Your task to perform on an android device: set the timer Image 0: 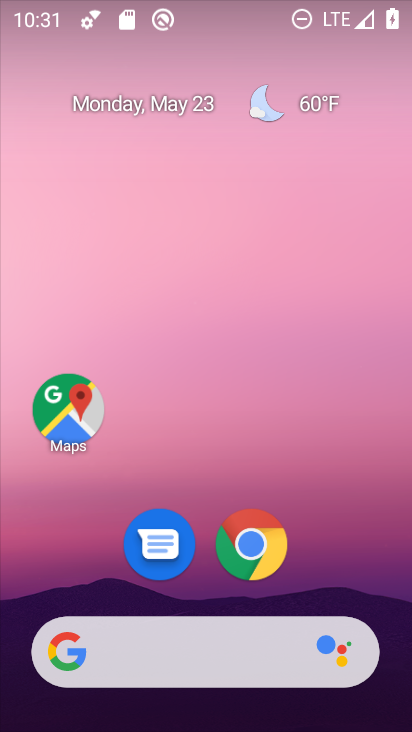
Step 0: drag from (309, 580) to (263, 324)
Your task to perform on an android device: set the timer Image 1: 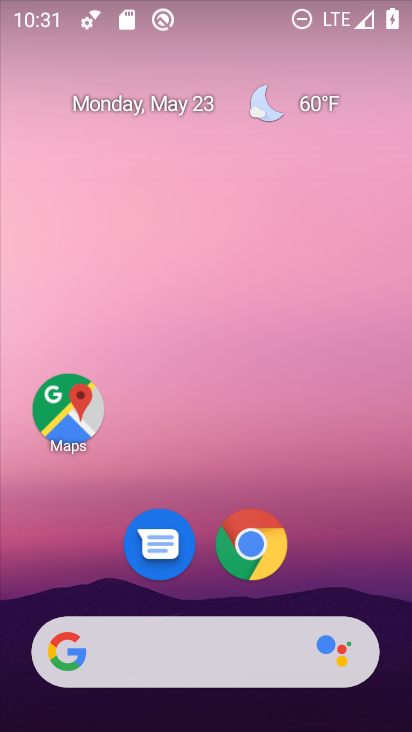
Step 1: drag from (335, 579) to (149, 140)
Your task to perform on an android device: set the timer Image 2: 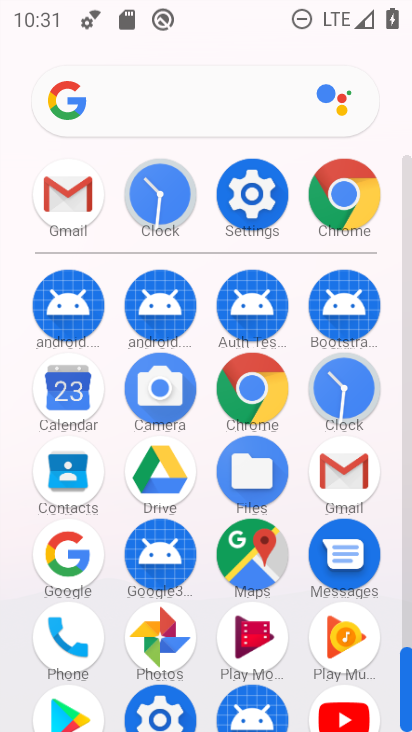
Step 2: click (166, 218)
Your task to perform on an android device: set the timer Image 3: 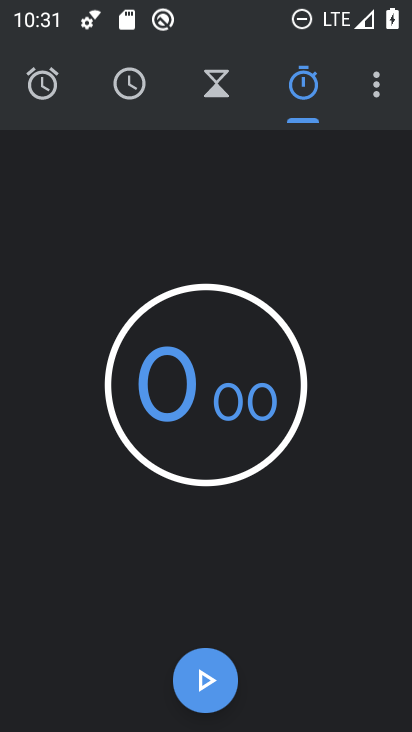
Step 3: click (212, 85)
Your task to perform on an android device: set the timer Image 4: 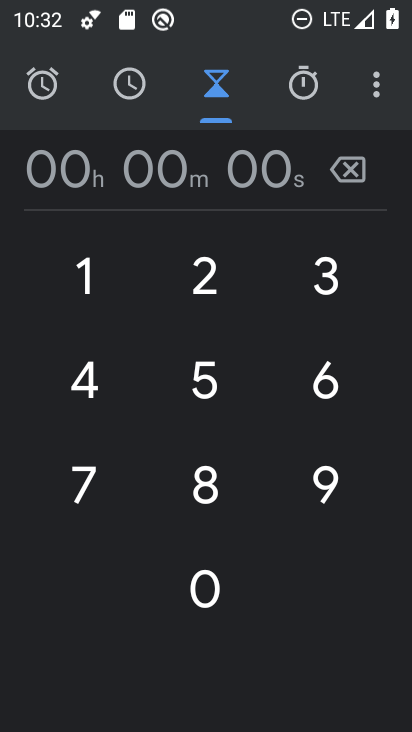
Step 4: click (205, 381)
Your task to perform on an android device: set the timer Image 5: 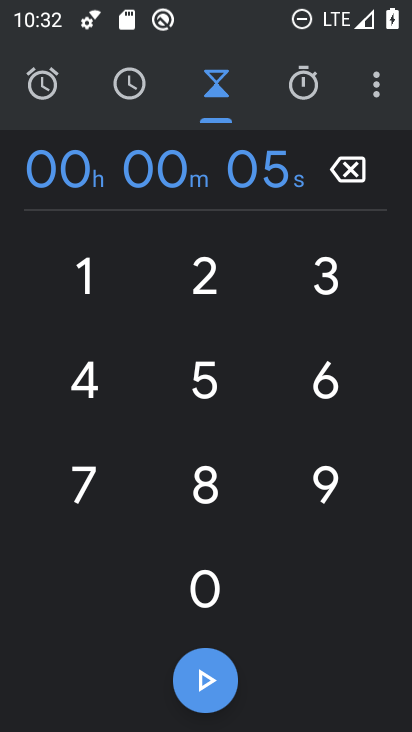
Step 5: click (202, 284)
Your task to perform on an android device: set the timer Image 6: 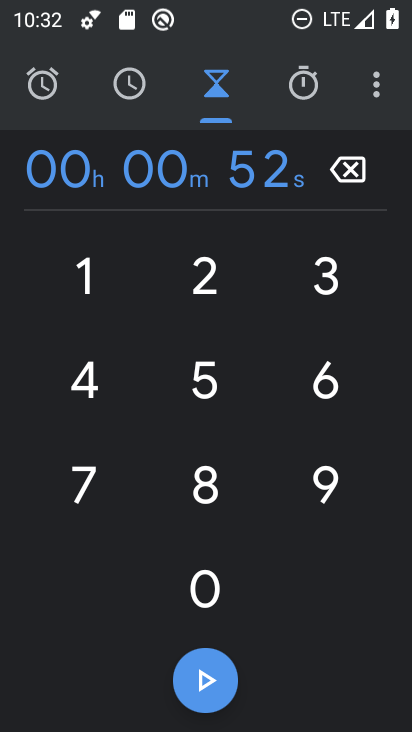
Step 6: click (213, 585)
Your task to perform on an android device: set the timer Image 7: 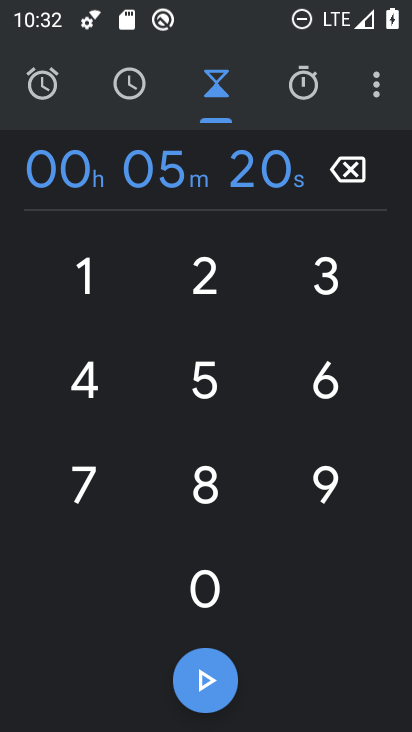
Step 7: click (213, 585)
Your task to perform on an android device: set the timer Image 8: 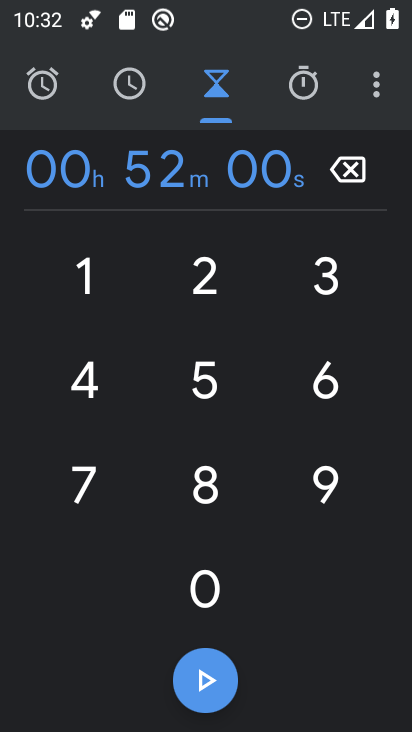
Step 8: click (213, 585)
Your task to perform on an android device: set the timer Image 9: 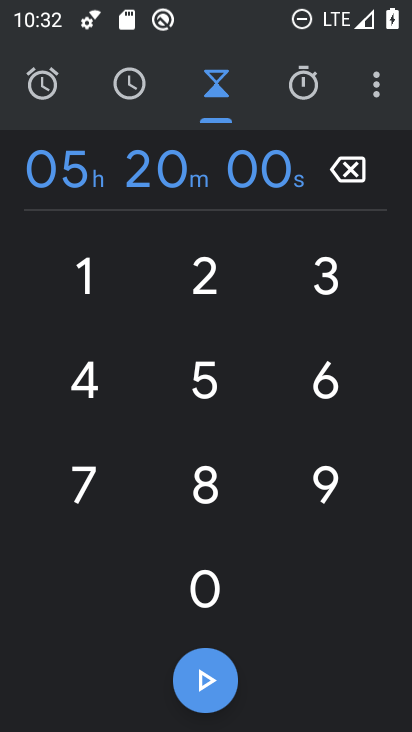
Step 9: click (207, 680)
Your task to perform on an android device: set the timer Image 10: 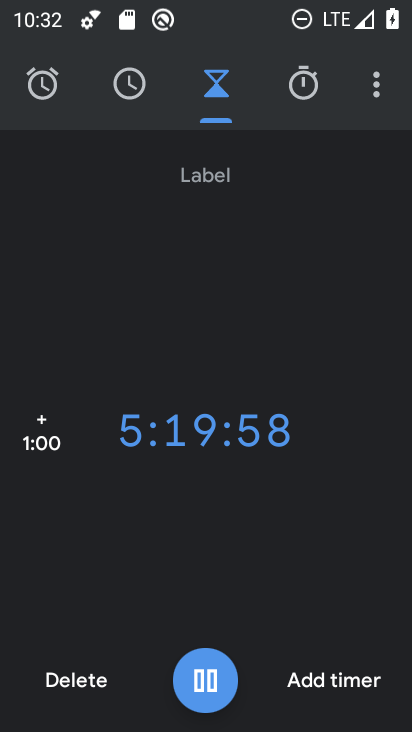
Step 10: click (323, 669)
Your task to perform on an android device: set the timer Image 11: 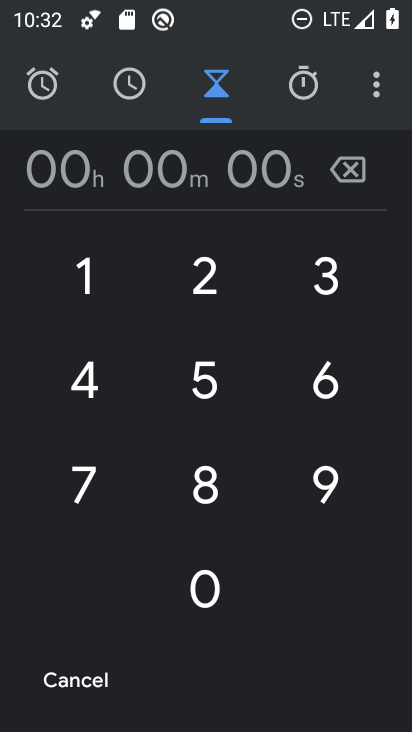
Step 11: task complete